Your task to perform on an android device: change the clock style Image 0: 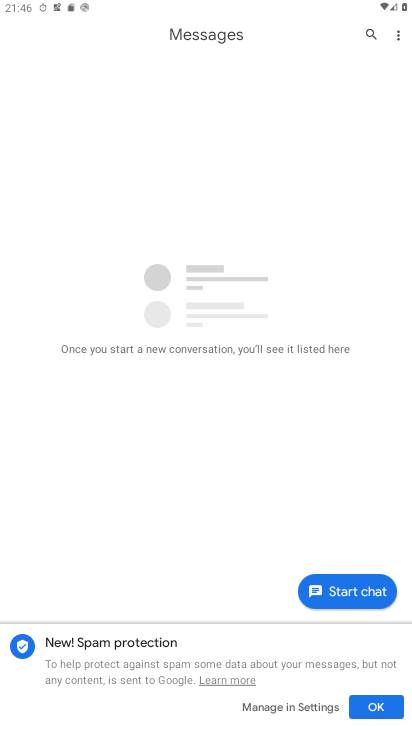
Step 0: press home button
Your task to perform on an android device: change the clock style Image 1: 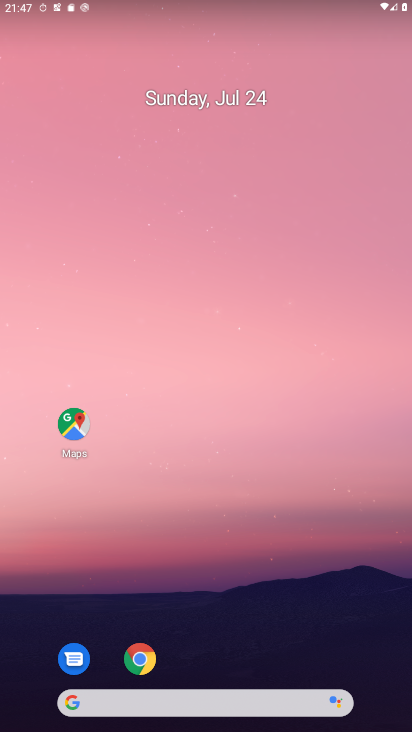
Step 1: drag from (216, 722) to (185, 182)
Your task to perform on an android device: change the clock style Image 2: 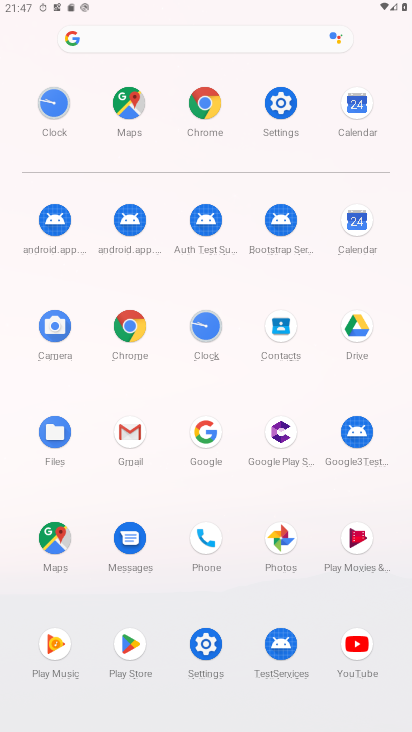
Step 2: click (201, 325)
Your task to perform on an android device: change the clock style Image 3: 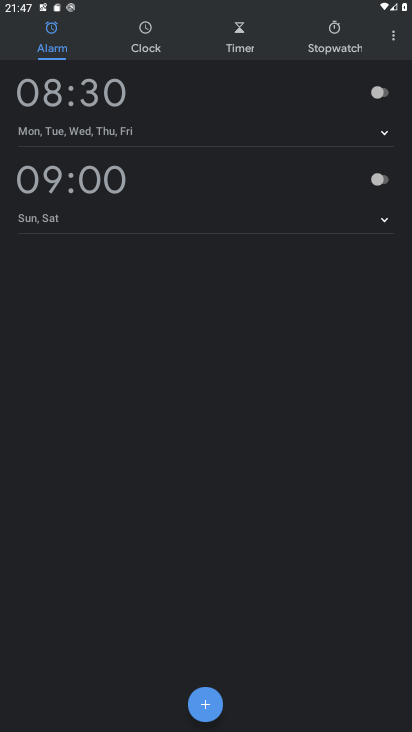
Step 3: click (393, 36)
Your task to perform on an android device: change the clock style Image 4: 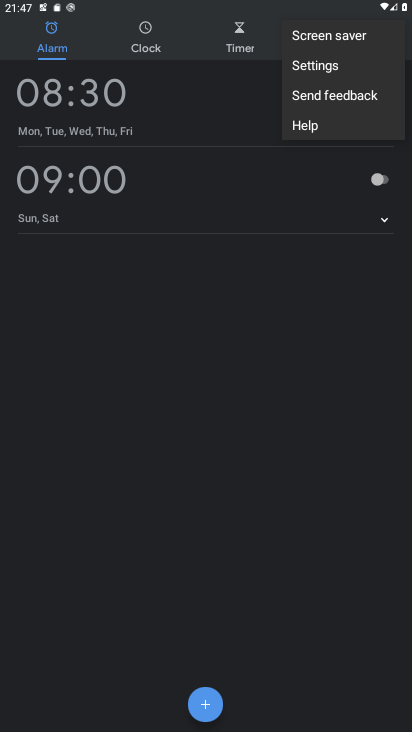
Step 4: click (315, 67)
Your task to perform on an android device: change the clock style Image 5: 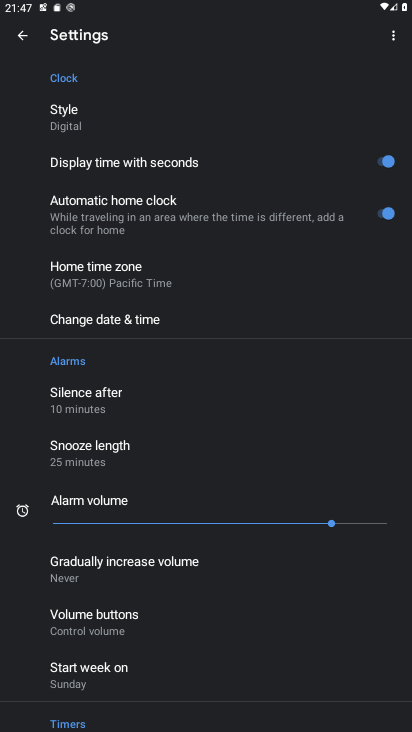
Step 5: click (72, 115)
Your task to perform on an android device: change the clock style Image 6: 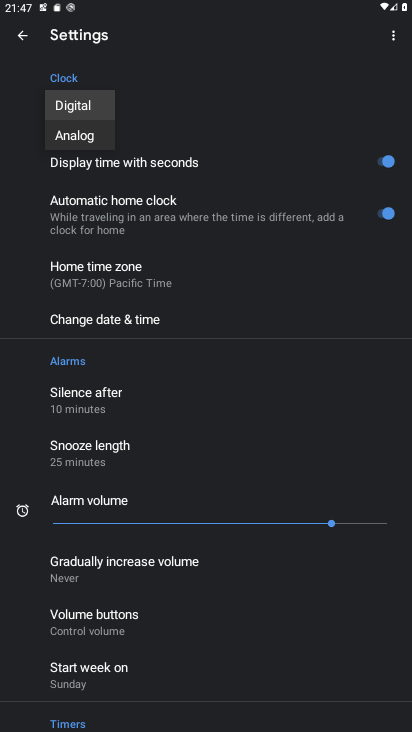
Step 6: click (75, 137)
Your task to perform on an android device: change the clock style Image 7: 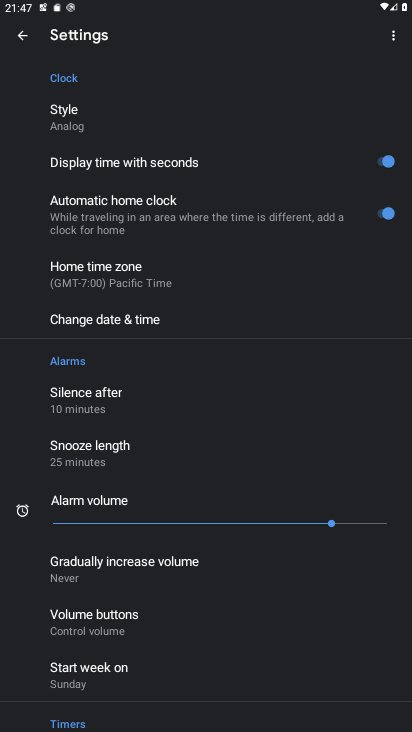
Step 7: task complete